Your task to perform on an android device: Open Amazon Image 0: 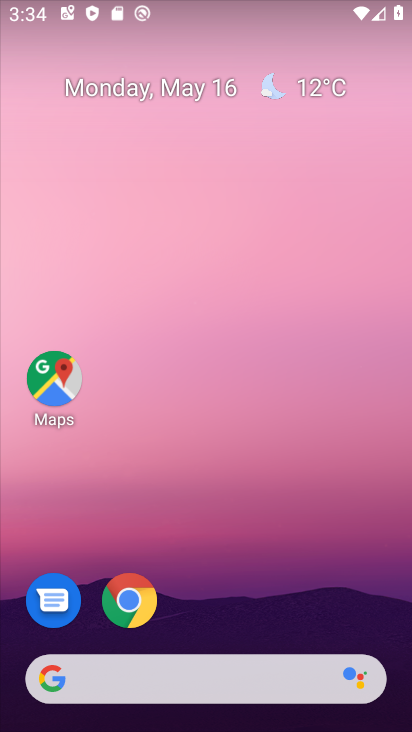
Step 0: click (116, 586)
Your task to perform on an android device: Open Amazon Image 1: 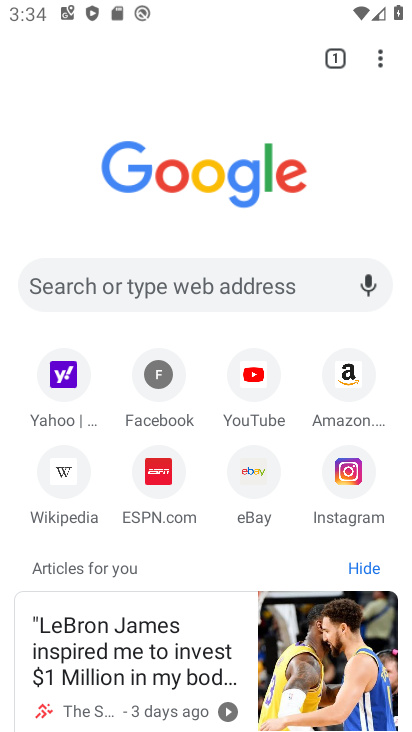
Step 1: click (342, 377)
Your task to perform on an android device: Open Amazon Image 2: 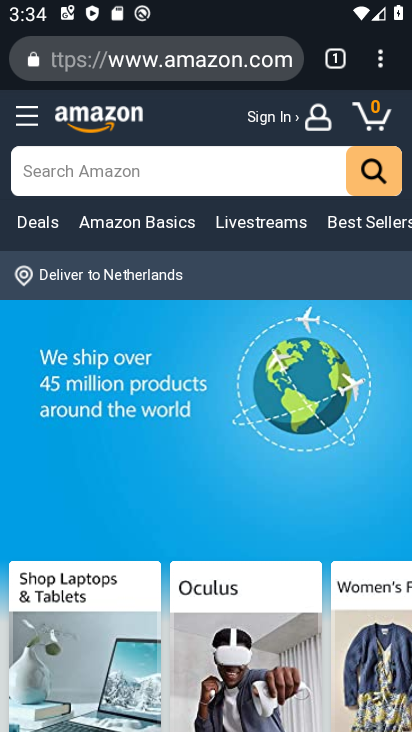
Step 2: task complete